Your task to perform on an android device: toggle translation in the chrome app Image 0: 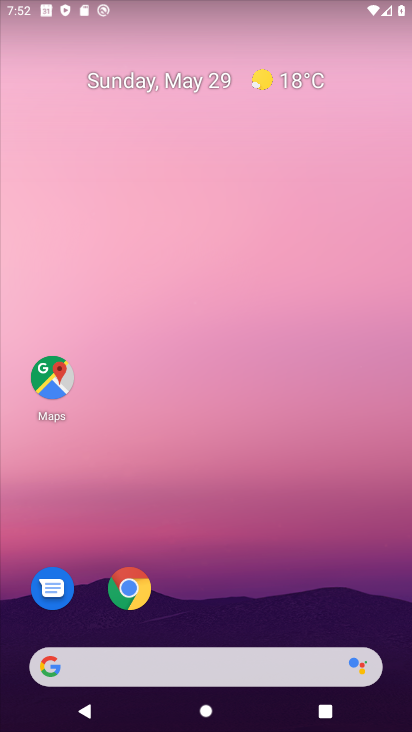
Step 0: click (129, 587)
Your task to perform on an android device: toggle translation in the chrome app Image 1: 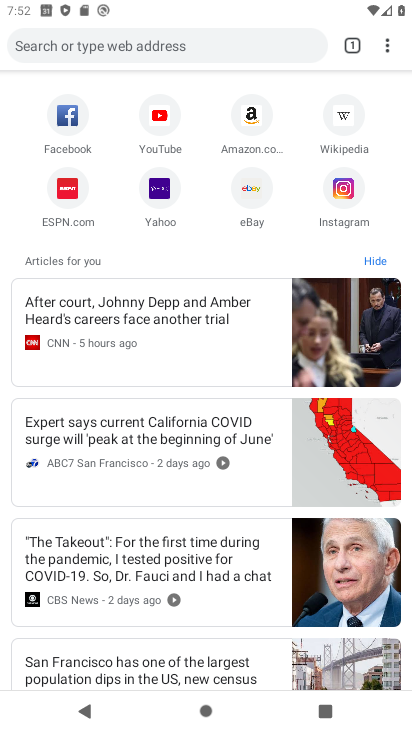
Step 1: click (381, 52)
Your task to perform on an android device: toggle translation in the chrome app Image 2: 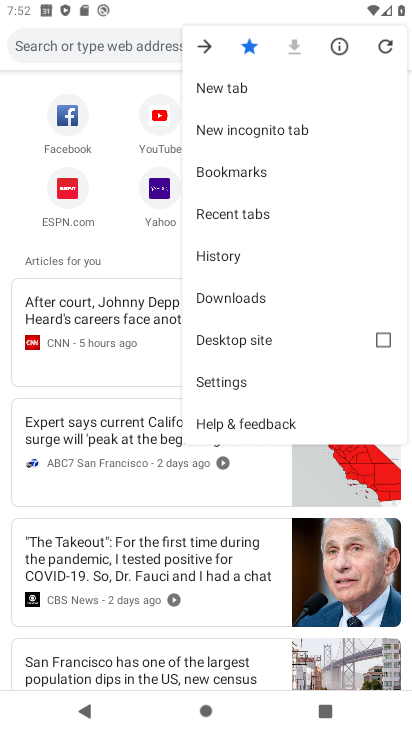
Step 2: click (237, 380)
Your task to perform on an android device: toggle translation in the chrome app Image 3: 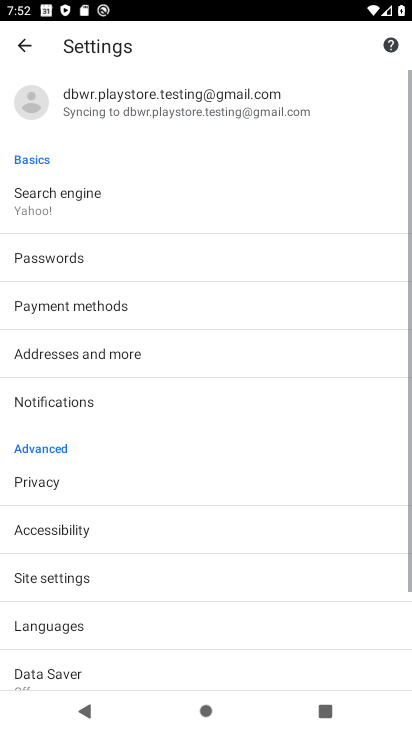
Step 3: drag from (160, 609) to (177, 518)
Your task to perform on an android device: toggle translation in the chrome app Image 4: 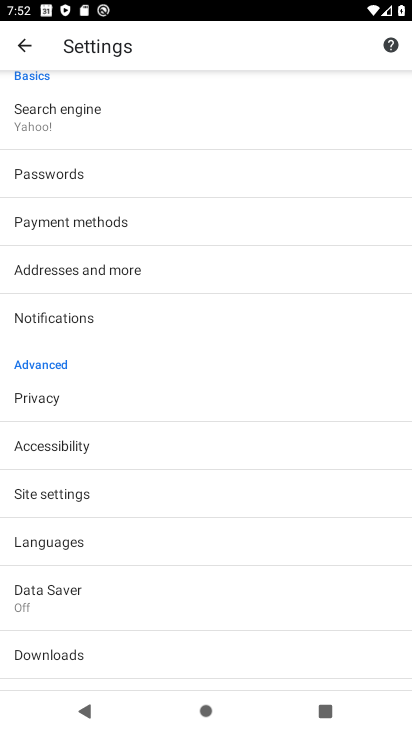
Step 4: click (73, 534)
Your task to perform on an android device: toggle translation in the chrome app Image 5: 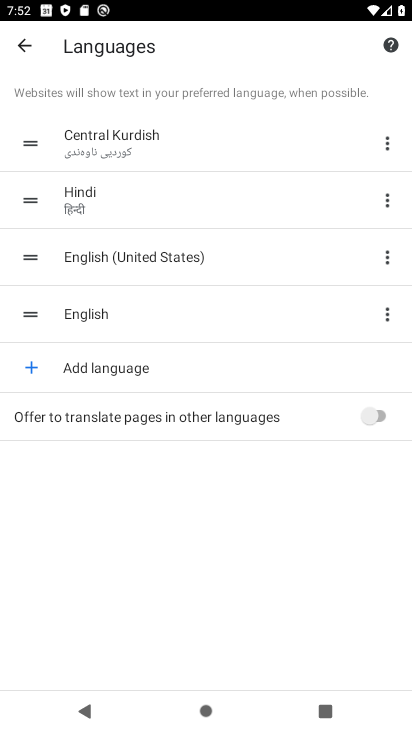
Step 5: click (371, 417)
Your task to perform on an android device: toggle translation in the chrome app Image 6: 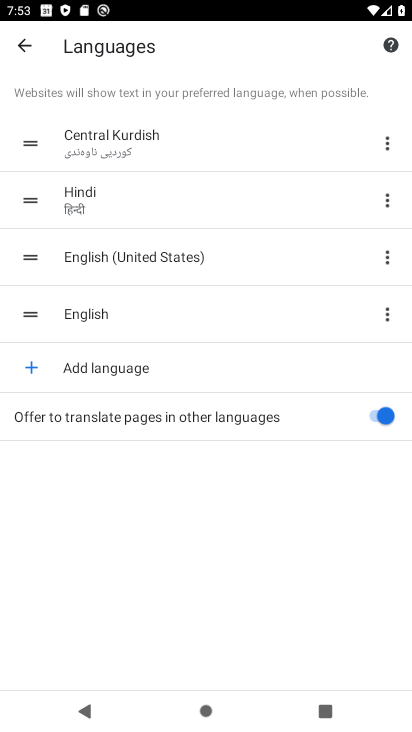
Step 6: task complete